Your task to perform on an android device: Open calendar and show me the first week of next month Image 0: 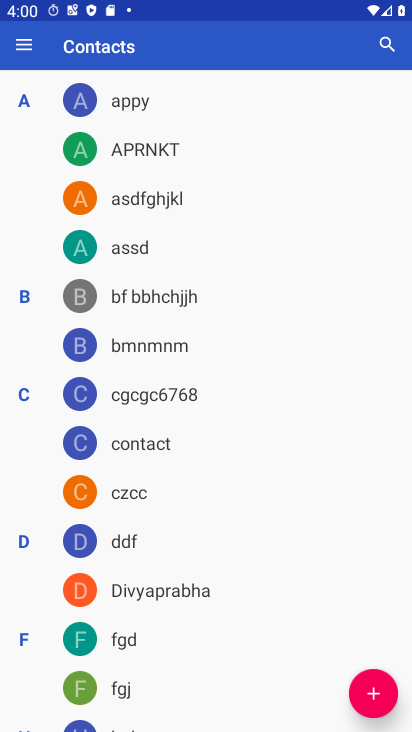
Step 0: press home button
Your task to perform on an android device: Open calendar and show me the first week of next month Image 1: 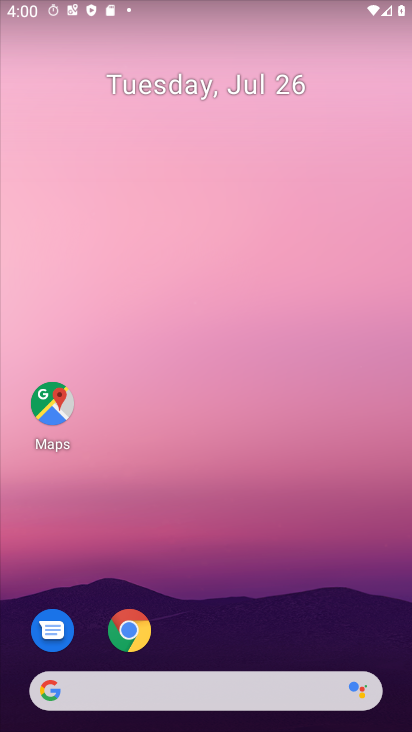
Step 1: drag from (257, 622) to (193, 70)
Your task to perform on an android device: Open calendar and show me the first week of next month Image 2: 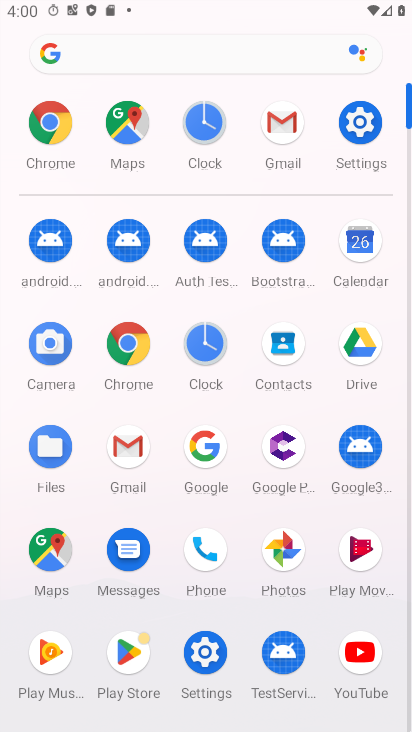
Step 2: click (378, 251)
Your task to perform on an android device: Open calendar and show me the first week of next month Image 3: 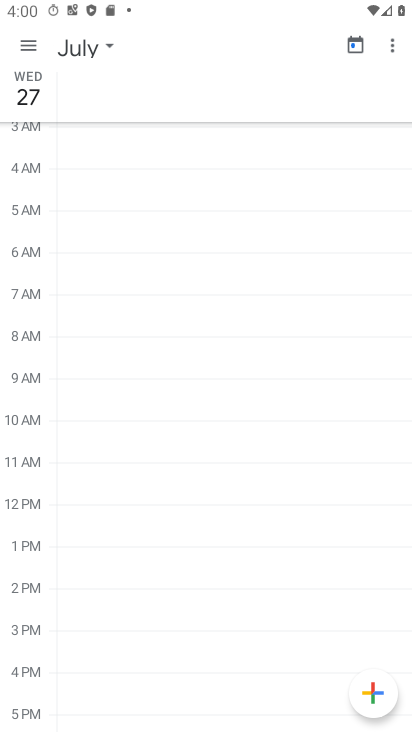
Step 3: click (29, 45)
Your task to perform on an android device: Open calendar and show me the first week of next month Image 4: 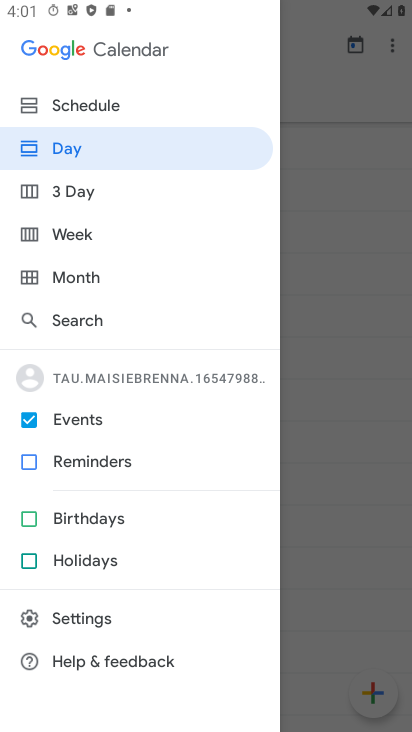
Step 4: click (82, 232)
Your task to perform on an android device: Open calendar and show me the first week of next month Image 5: 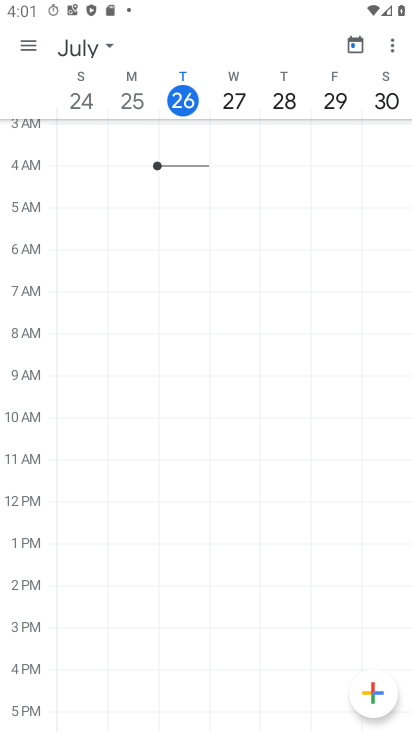
Step 5: click (95, 45)
Your task to perform on an android device: Open calendar and show me the first week of next month Image 6: 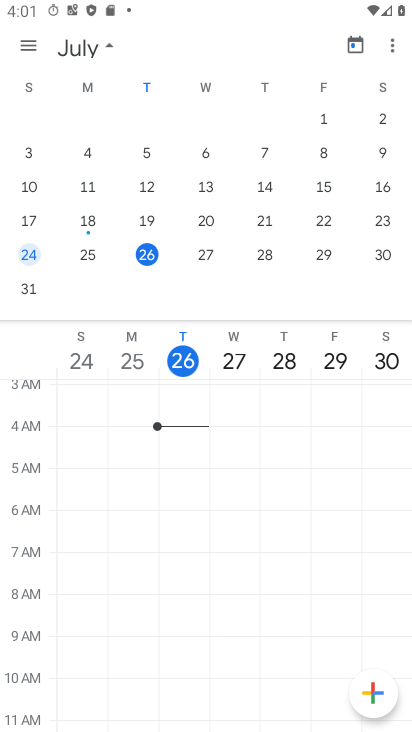
Step 6: task complete